Your task to perform on an android device: Search for sushi restaurants on Maps Image 0: 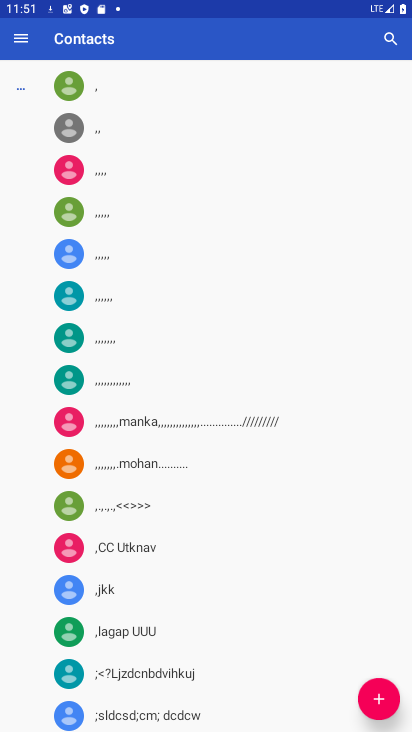
Step 0: press home button
Your task to perform on an android device: Search for sushi restaurants on Maps Image 1: 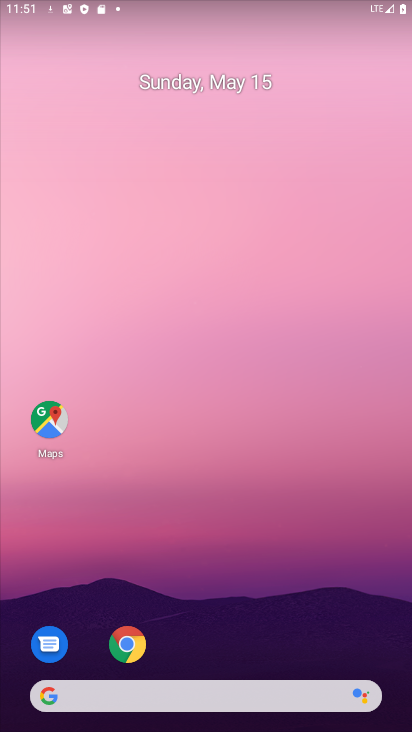
Step 1: drag from (215, 713) to (324, 419)
Your task to perform on an android device: Search for sushi restaurants on Maps Image 2: 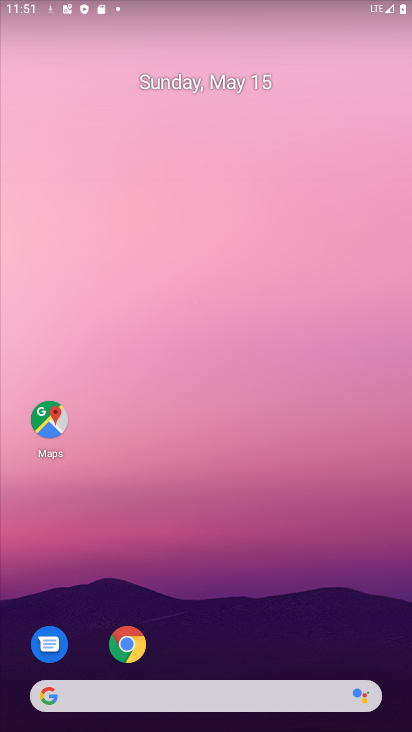
Step 2: drag from (240, 692) to (340, 265)
Your task to perform on an android device: Search for sushi restaurants on Maps Image 3: 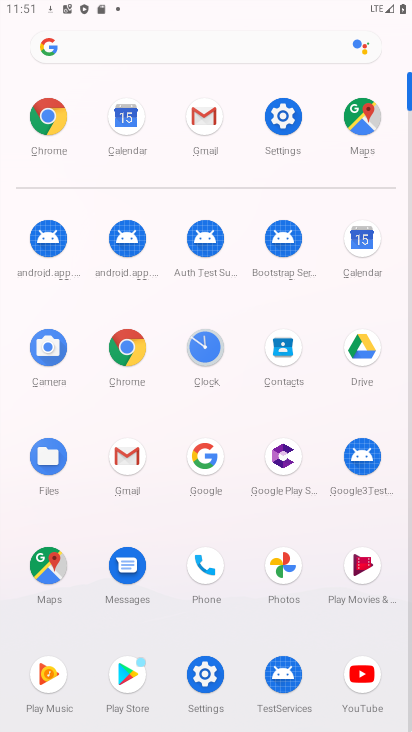
Step 3: click (375, 132)
Your task to perform on an android device: Search for sushi restaurants on Maps Image 4: 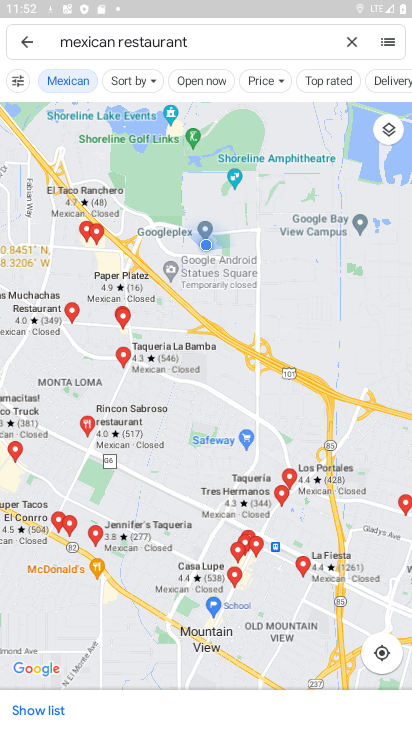
Step 4: click (355, 43)
Your task to perform on an android device: Search for sushi restaurants on Maps Image 5: 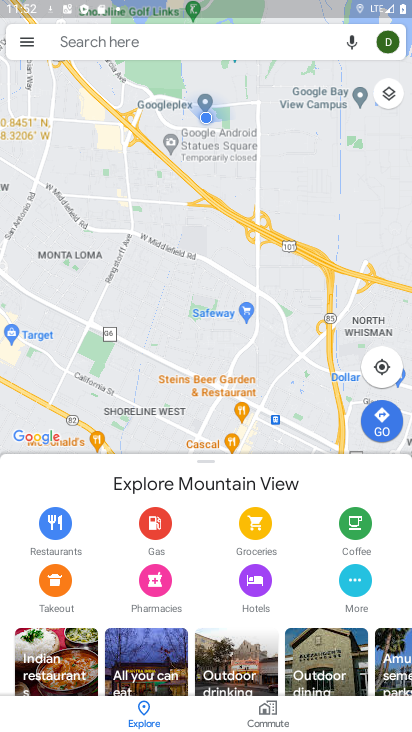
Step 5: click (153, 42)
Your task to perform on an android device: Search for sushi restaurants on Maps Image 6: 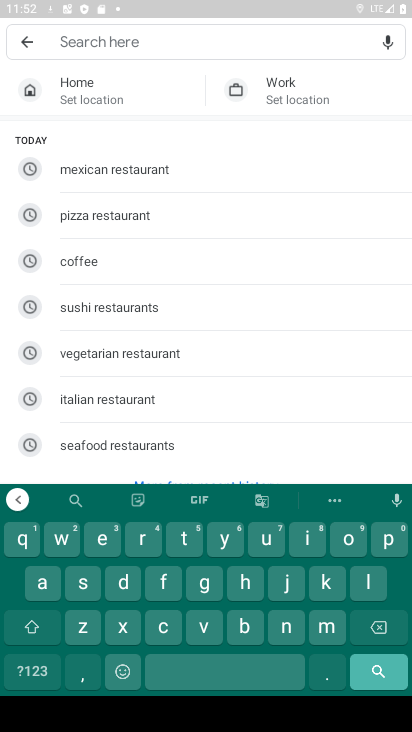
Step 6: click (144, 301)
Your task to perform on an android device: Search for sushi restaurants on Maps Image 7: 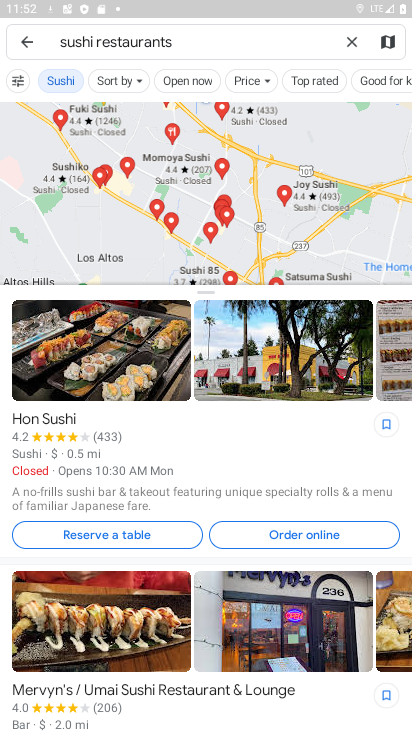
Step 7: task complete